Your task to perform on an android device: open a new tab in the chrome app Image 0: 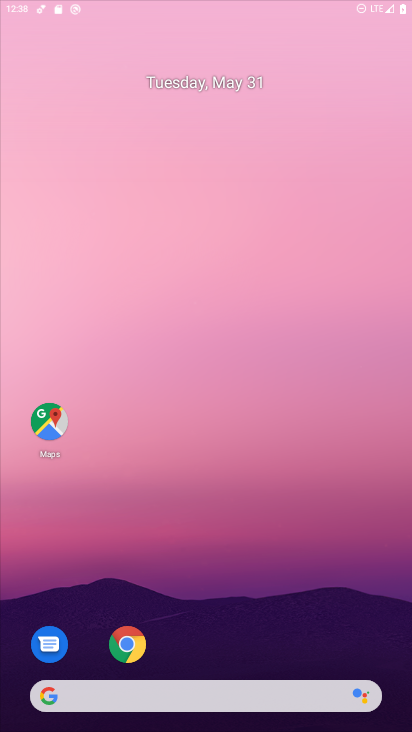
Step 0: drag from (207, 591) to (403, 390)
Your task to perform on an android device: open a new tab in the chrome app Image 1: 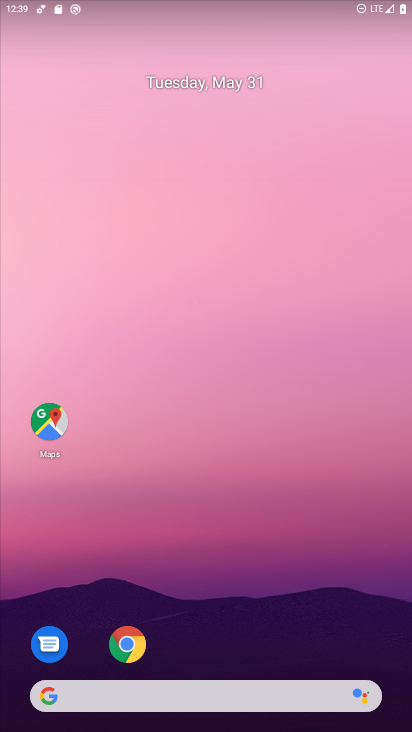
Step 1: click (138, 641)
Your task to perform on an android device: open a new tab in the chrome app Image 2: 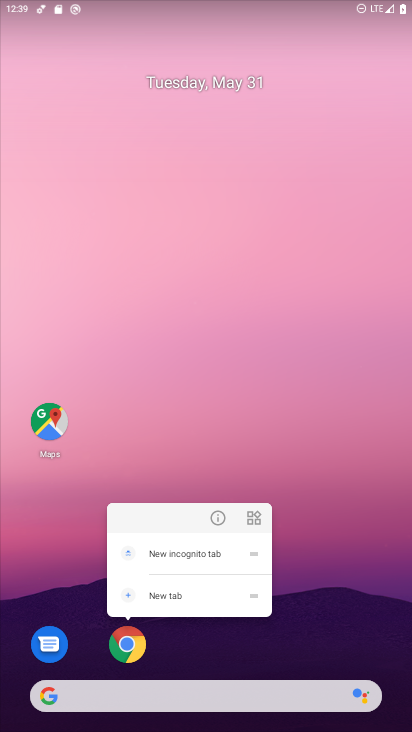
Step 2: click (217, 523)
Your task to perform on an android device: open a new tab in the chrome app Image 3: 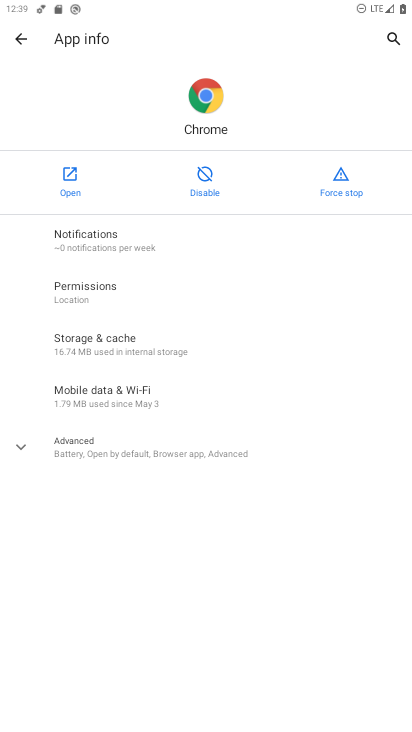
Step 3: click (51, 168)
Your task to perform on an android device: open a new tab in the chrome app Image 4: 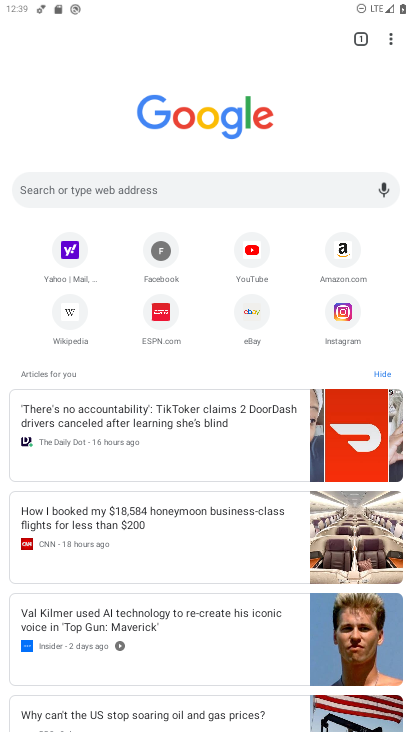
Step 4: task complete